Your task to perform on an android device: Open Google Maps Image 0: 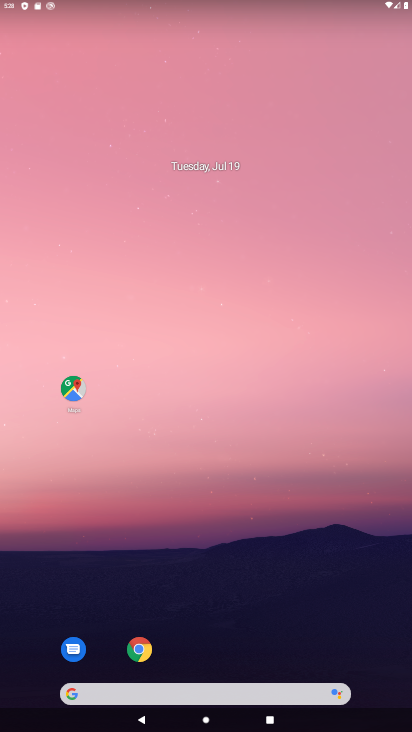
Step 0: drag from (297, 596) to (291, 0)
Your task to perform on an android device: Open Google Maps Image 1: 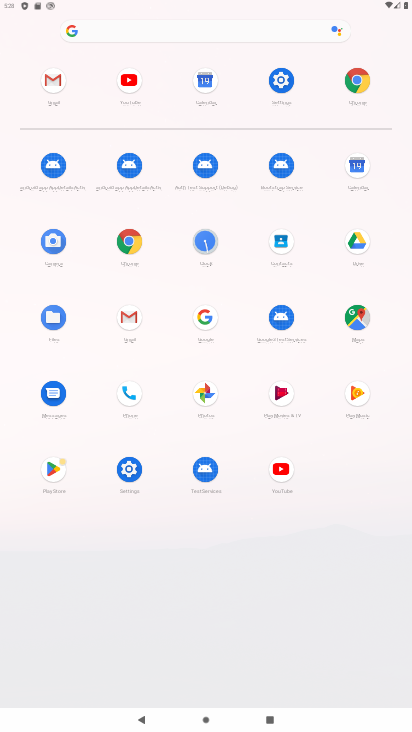
Step 1: click (366, 318)
Your task to perform on an android device: Open Google Maps Image 2: 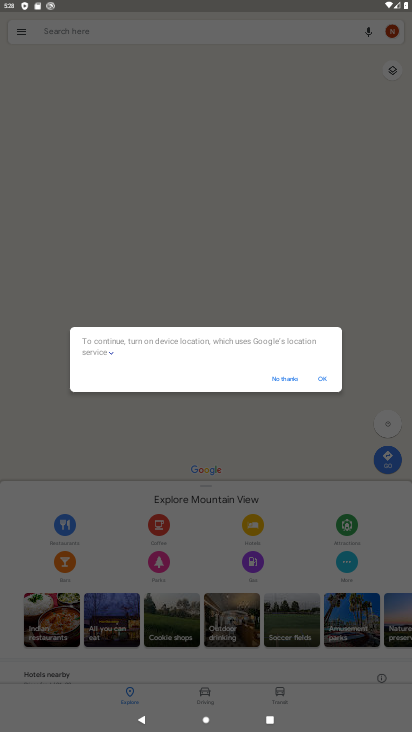
Step 2: task complete